Your task to perform on an android device: Go to Google maps Image 0: 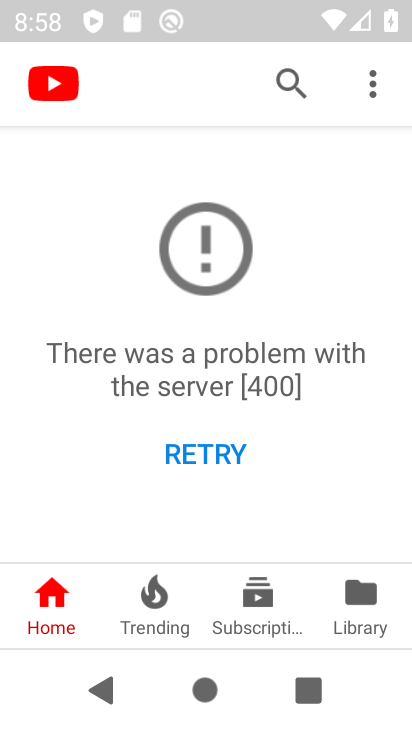
Step 0: press back button
Your task to perform on an android device: Go to Google maps Image 1: 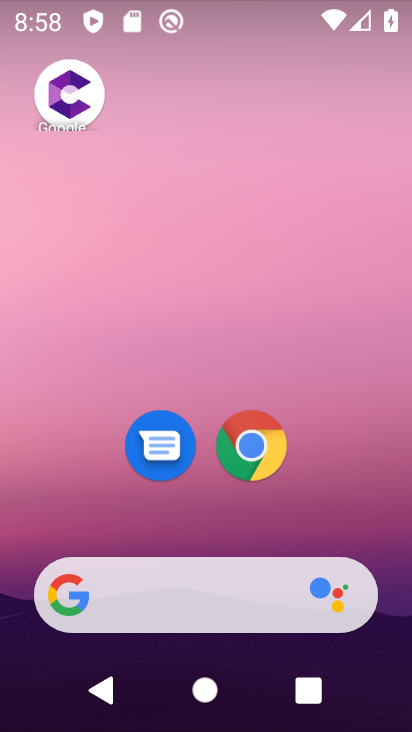
Step 1: drag from (262, 550) to (171, 51)
Your task to perform on an android device: Go to Google maps Image 2: 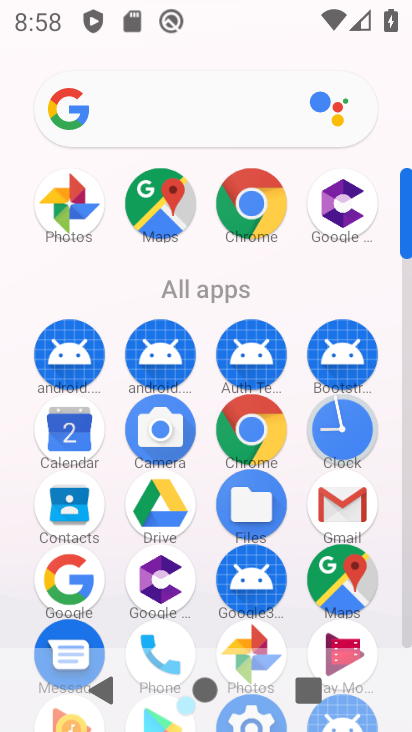
Step 2: click (326, 567)
Your task to perform on an android device: Go to Google maps Image 3: 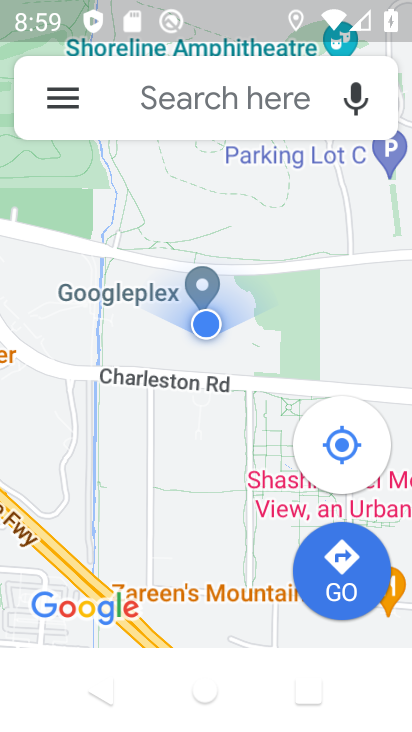
Step 3: task complete